Your task to perform on an android device: change the clock display to analog Image 0: 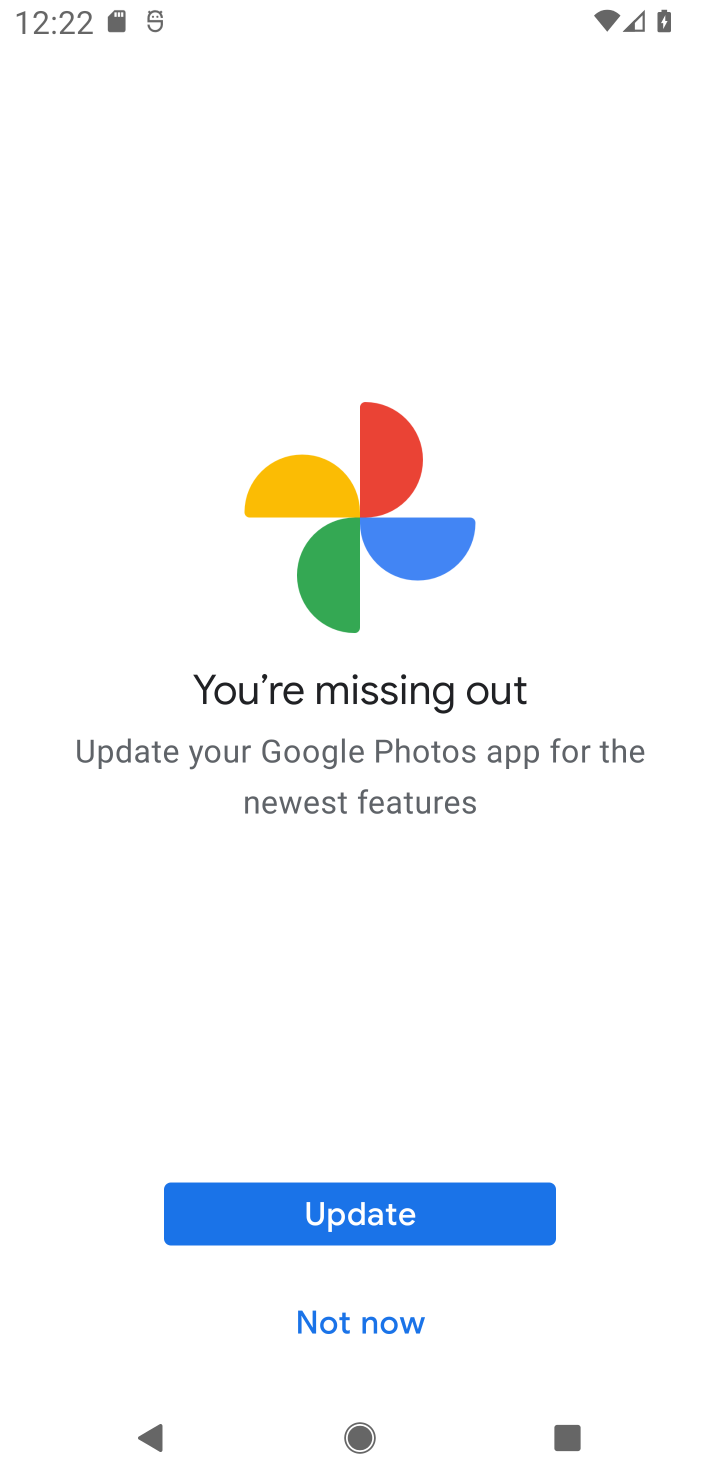
Step 0: press home button
Your task to perform on an android device: change the clock display to analog Image 1: 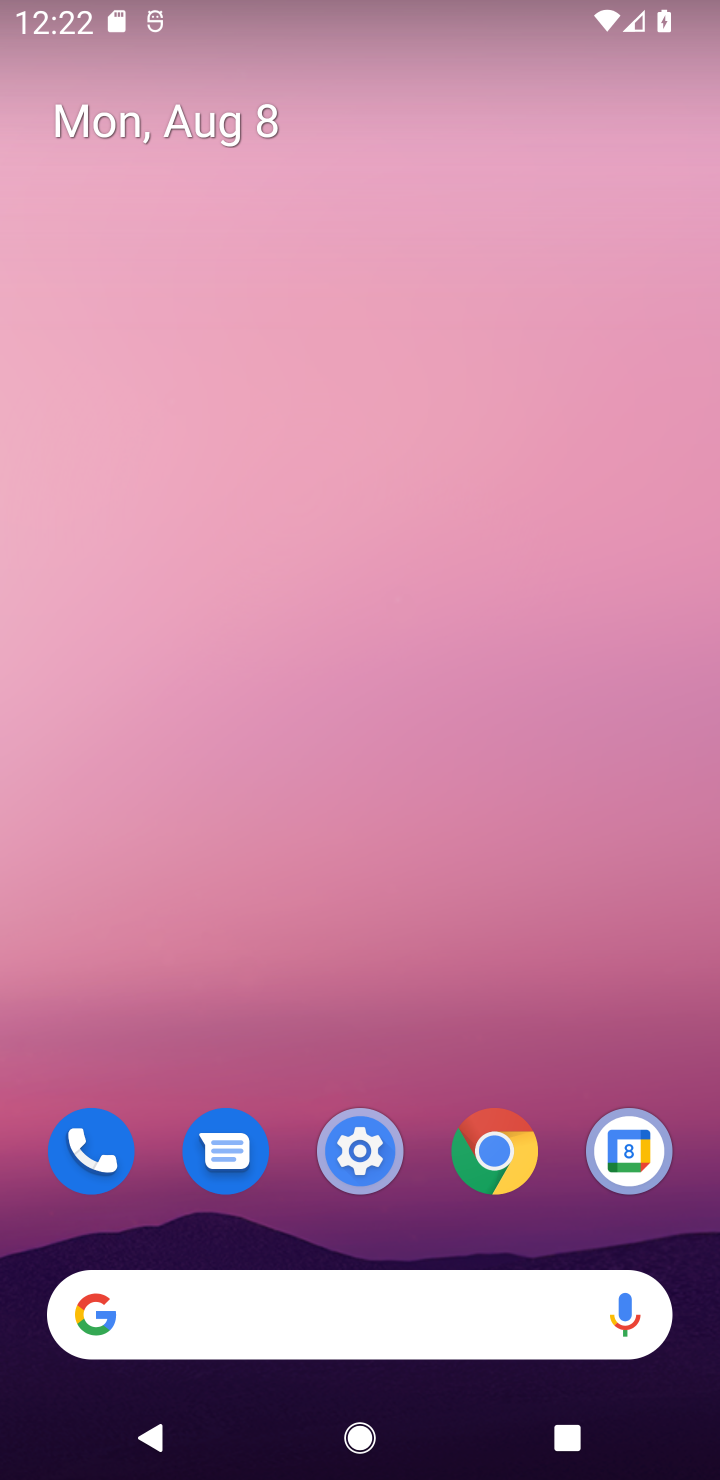
Step 1: drag from (246, 848) to (201, 162)
Your task to perform on an android device: change the clock display to analog Image 2: 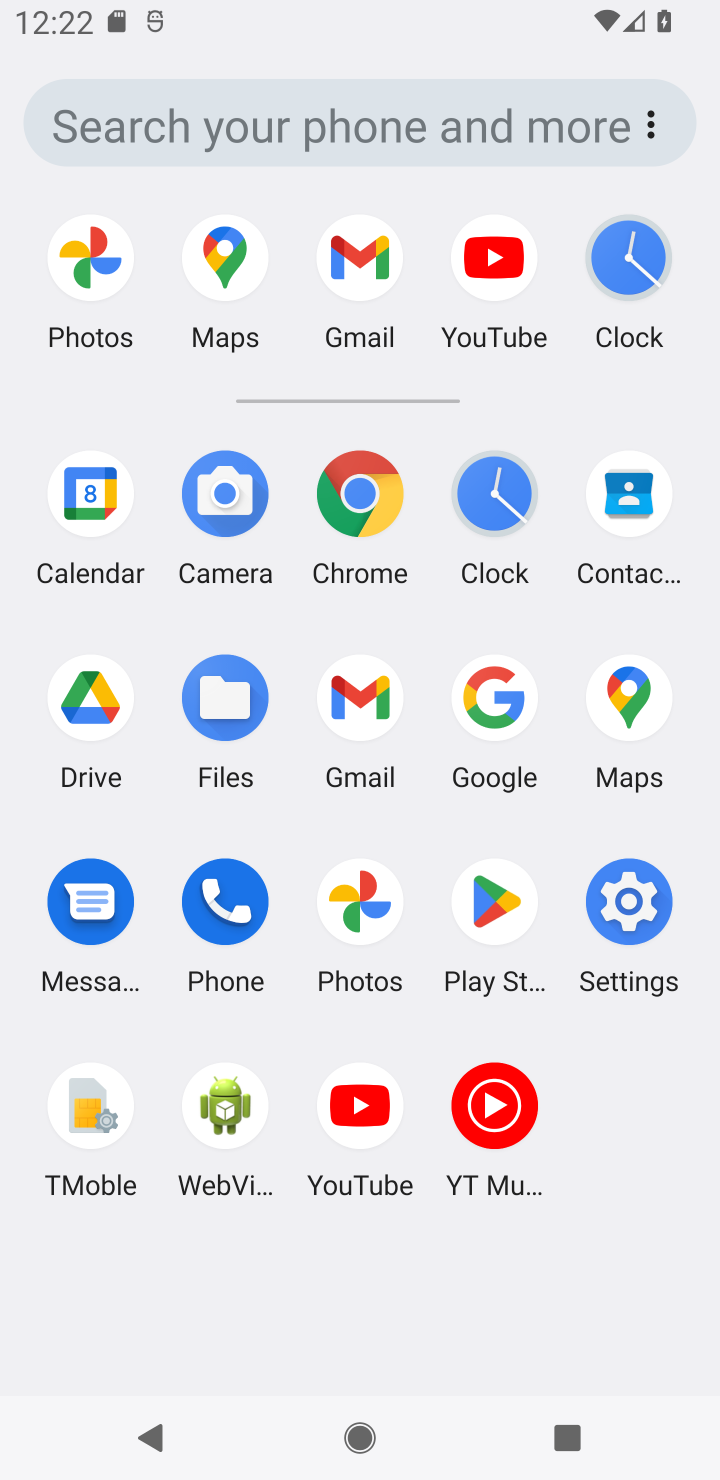
Step 2: click (491, 509)
Your task to perform on an android device: change the clock display to analog Image 3: 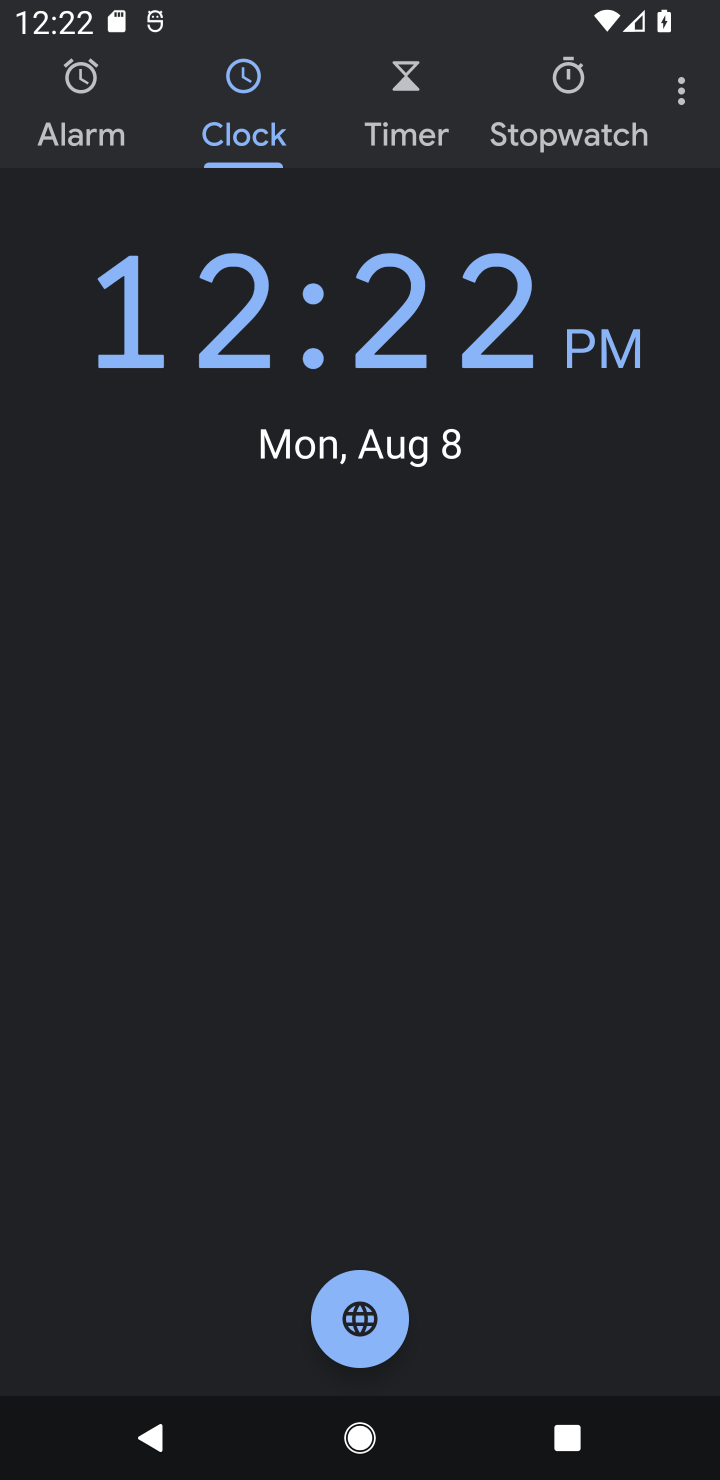
Step 3: click (686, 111)
Your task to perform on an android device: change the clock display to analog Image 4: 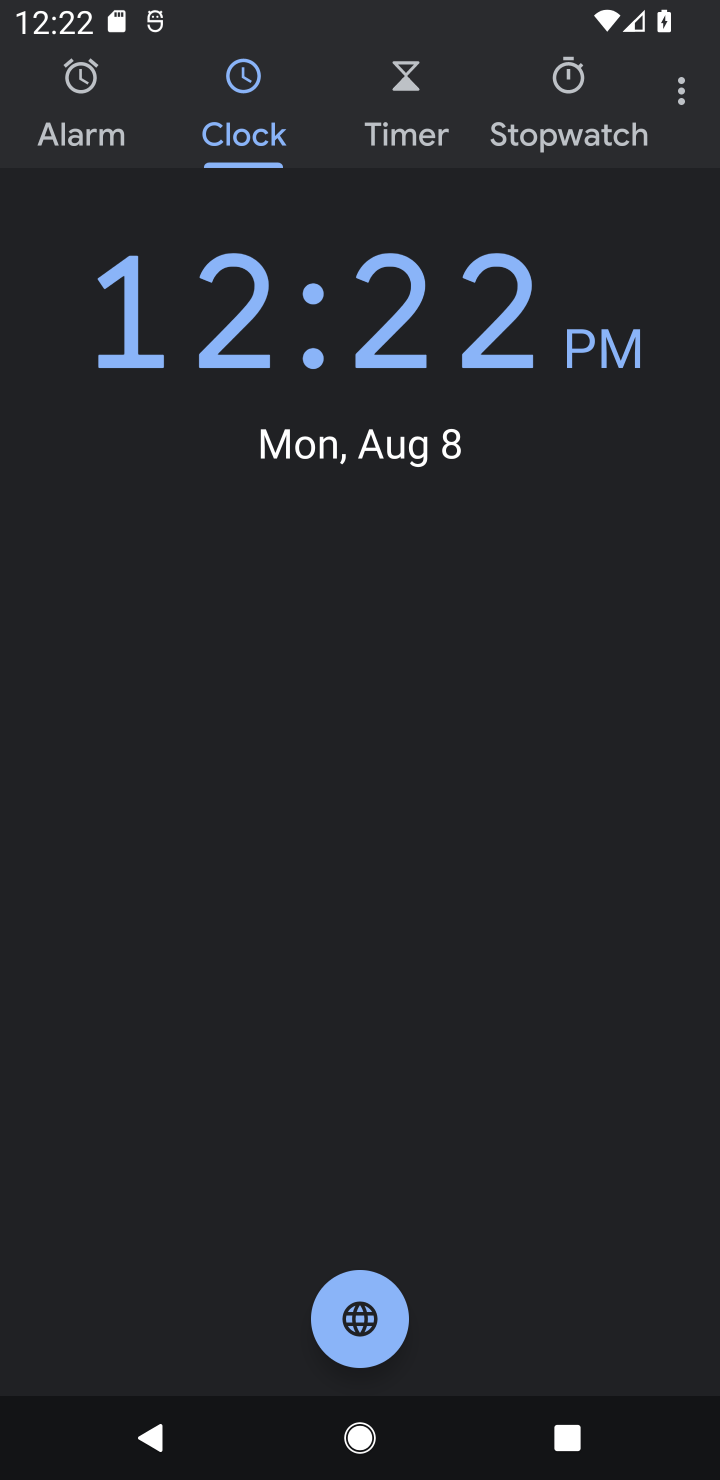
Step 4: click (660, 89)
Your task to perform on an android device: change the clock display to analog Image 5: 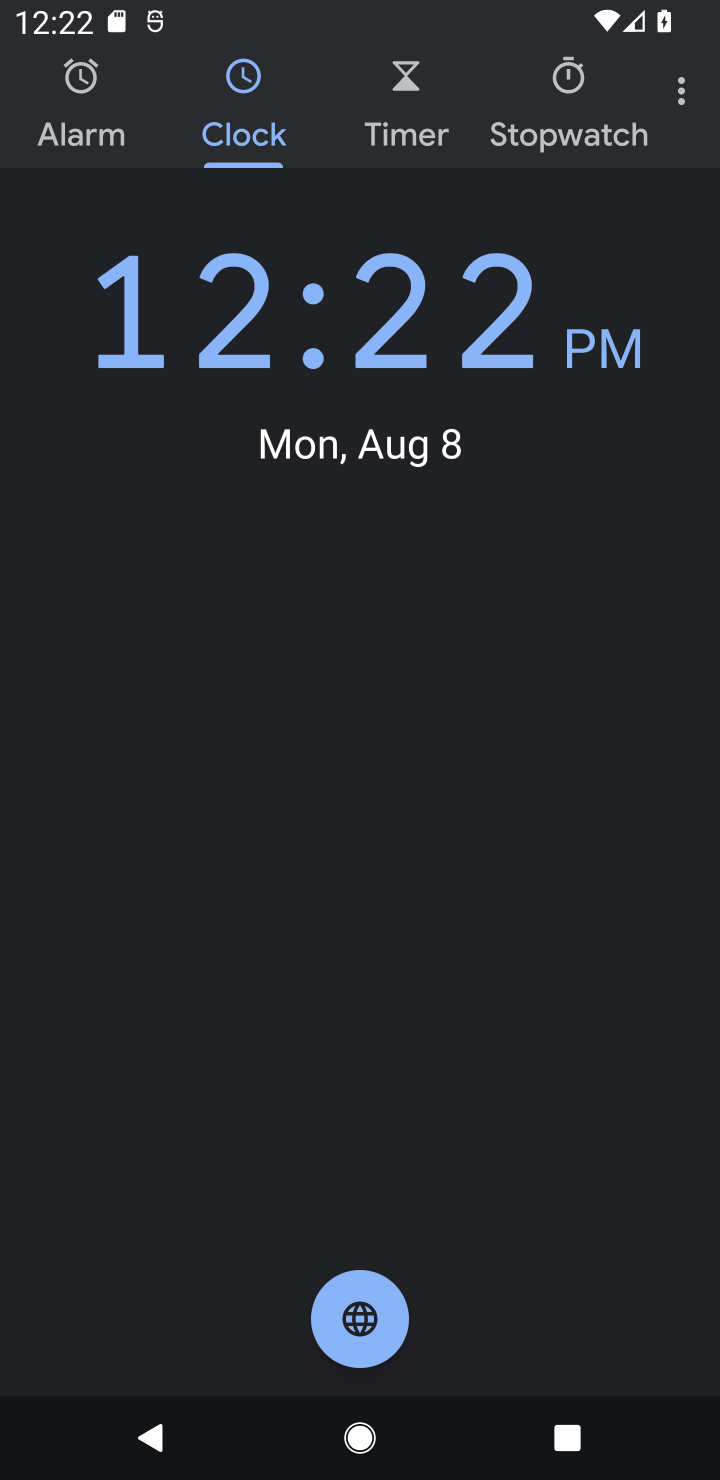
Step 5: click (674, 91)
Your task to perform on an android device: change the clock display to analog Image 6: 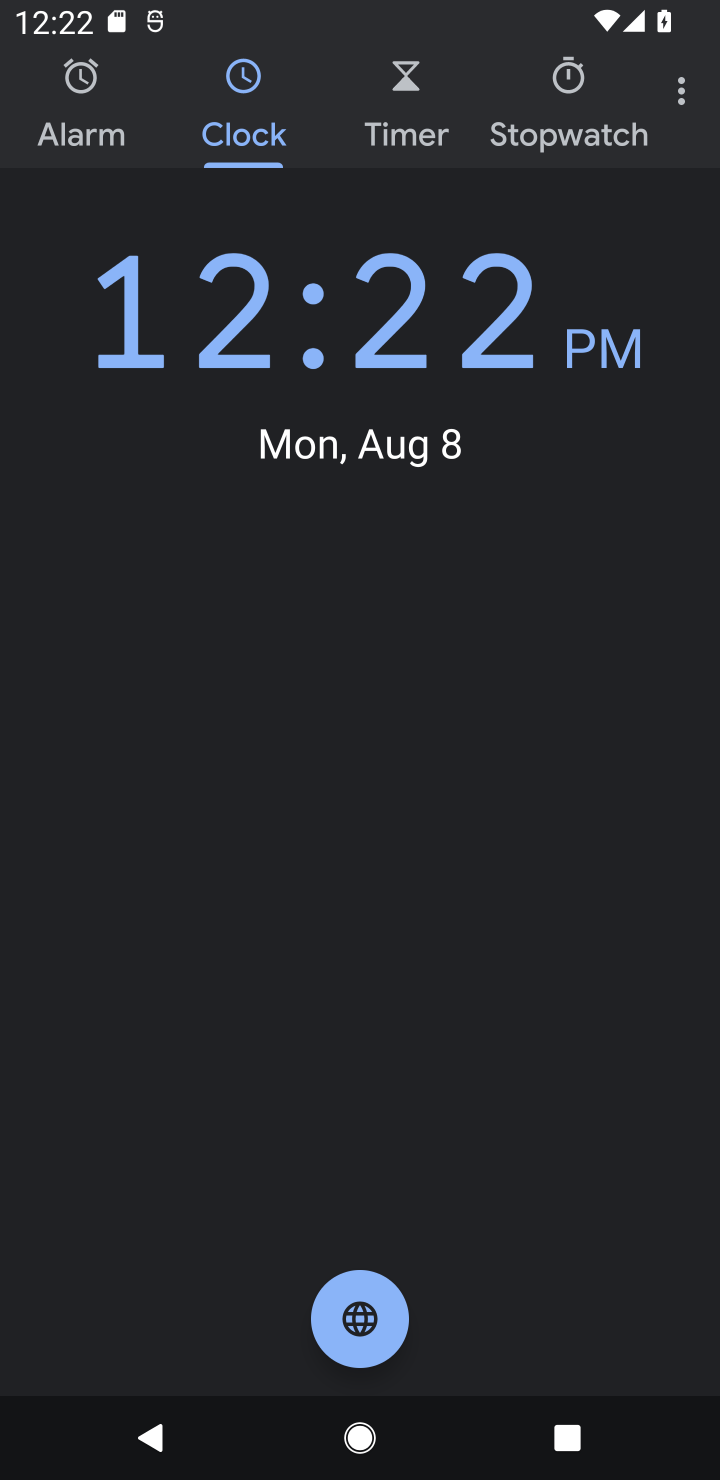
Step 6: click (686, 104)
Your task to perform on an android device: change the clock display to analog Image 7: 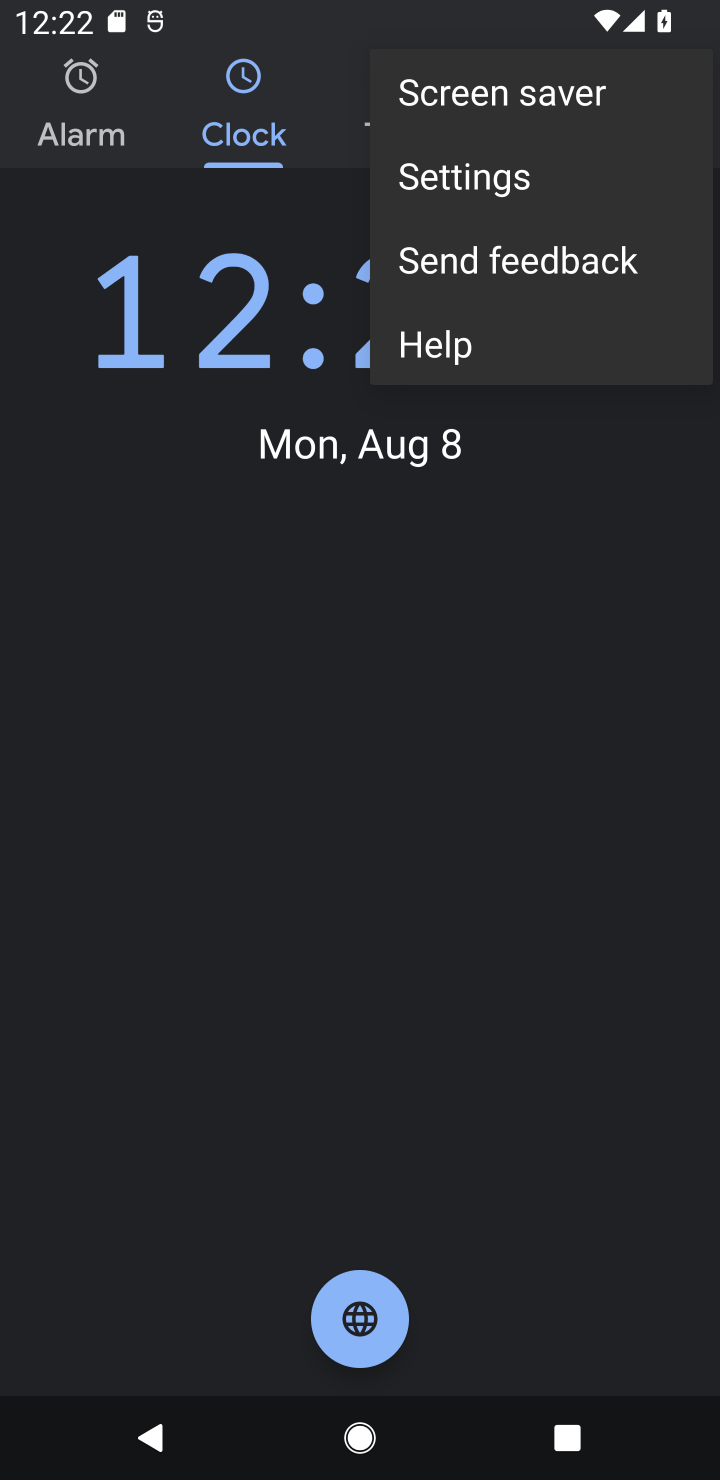
Step 7: click (487, 206)
Your task to perform on an android device: change the clock display to analog Image 8: 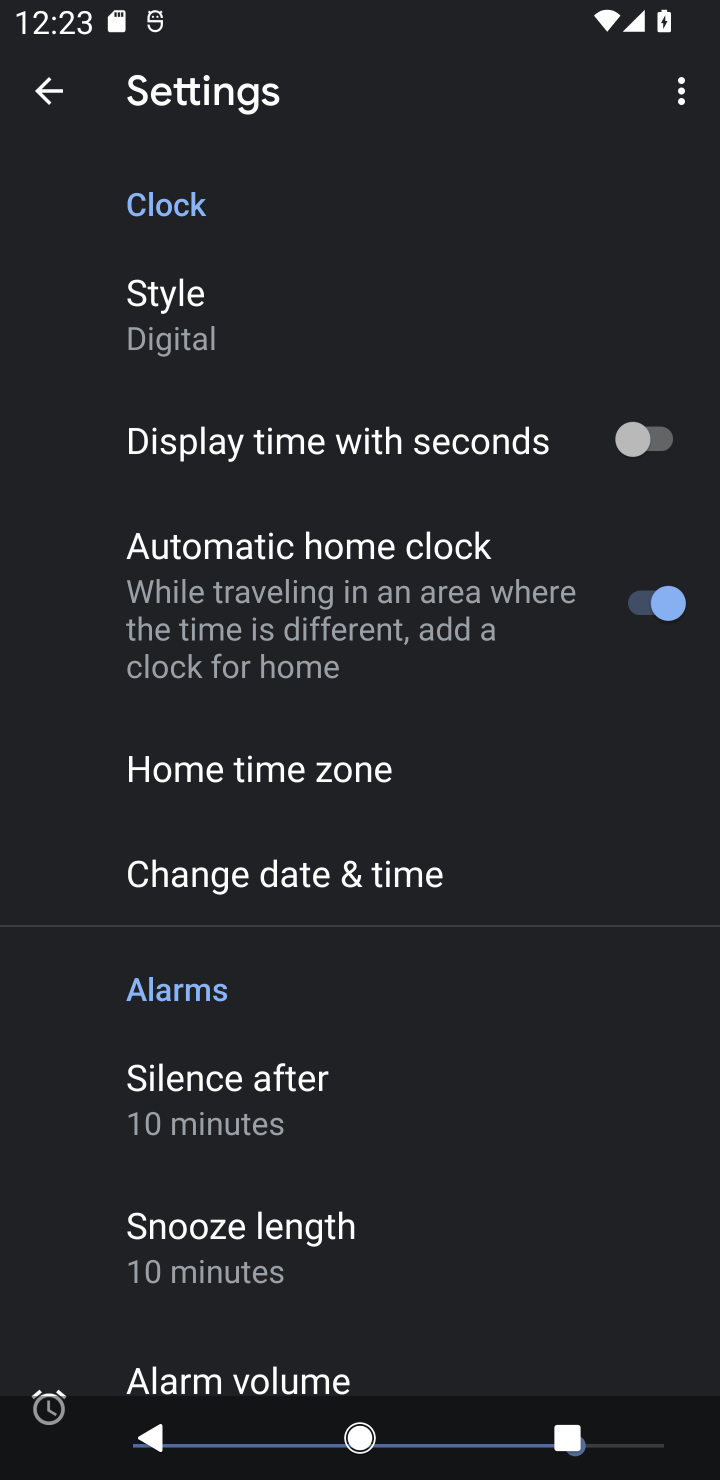
Step 8: click (673, 94)
Your task to perform on an android device: change the clock display to analog Image 9: 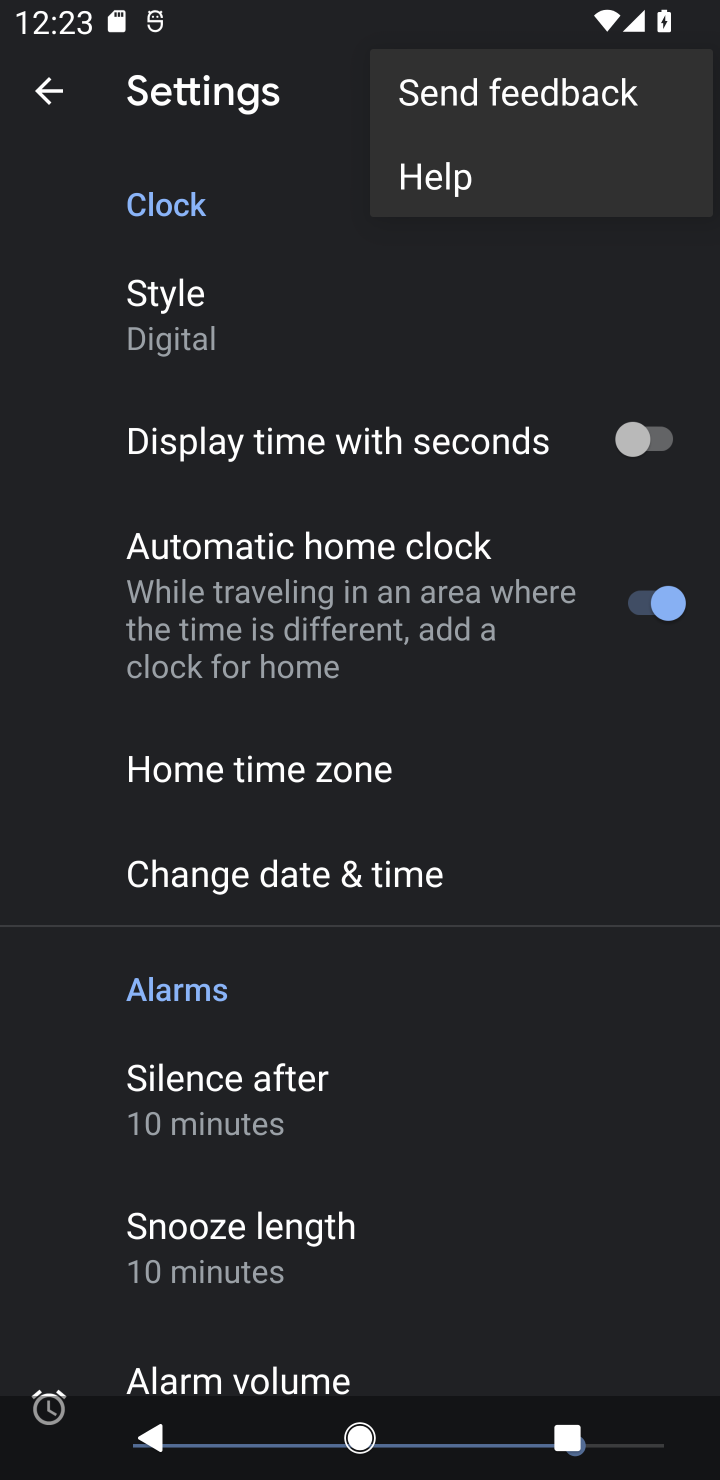
Step 9: click (340, 240)
Your task to perform on an android device: change the clock display to analog Image 10: 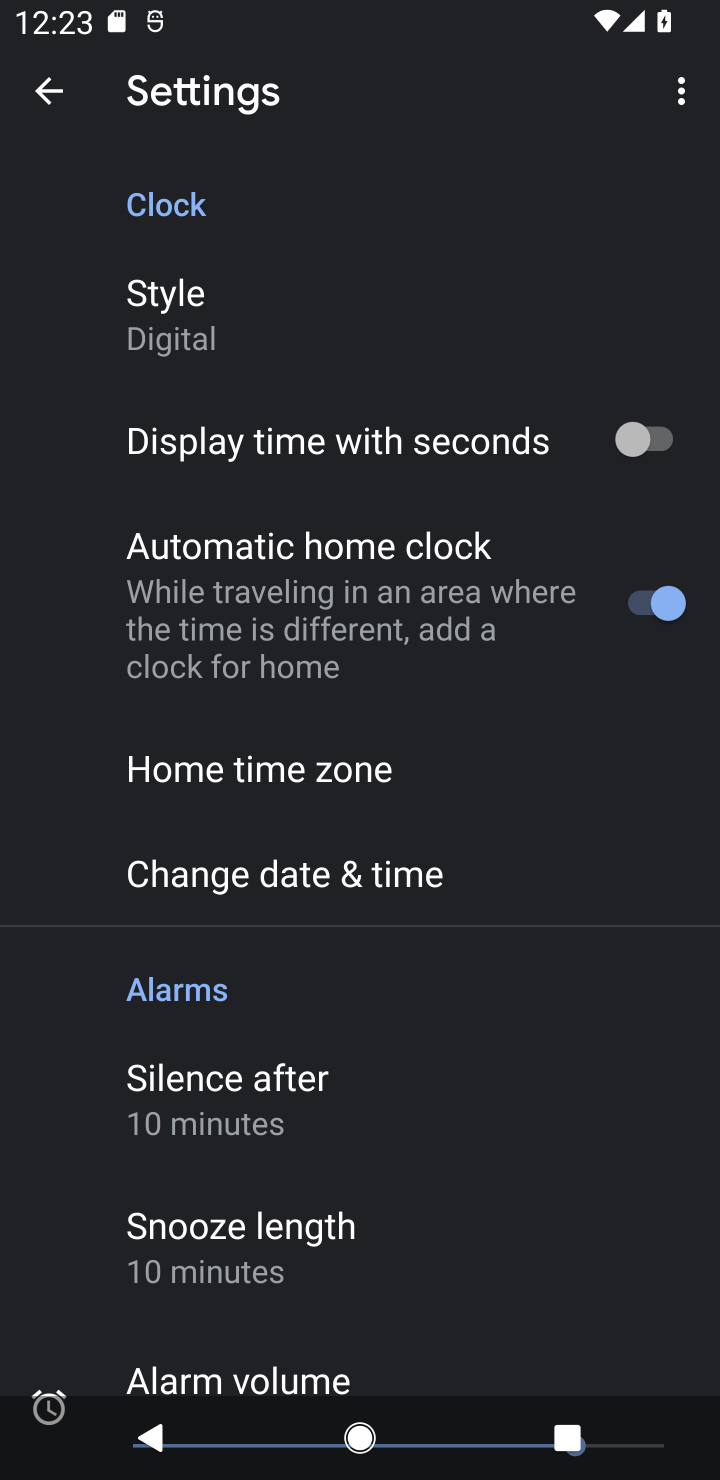
Step 10: click (180, 323)
Your task to perform on an android device: change the clock display to analog Image 11: 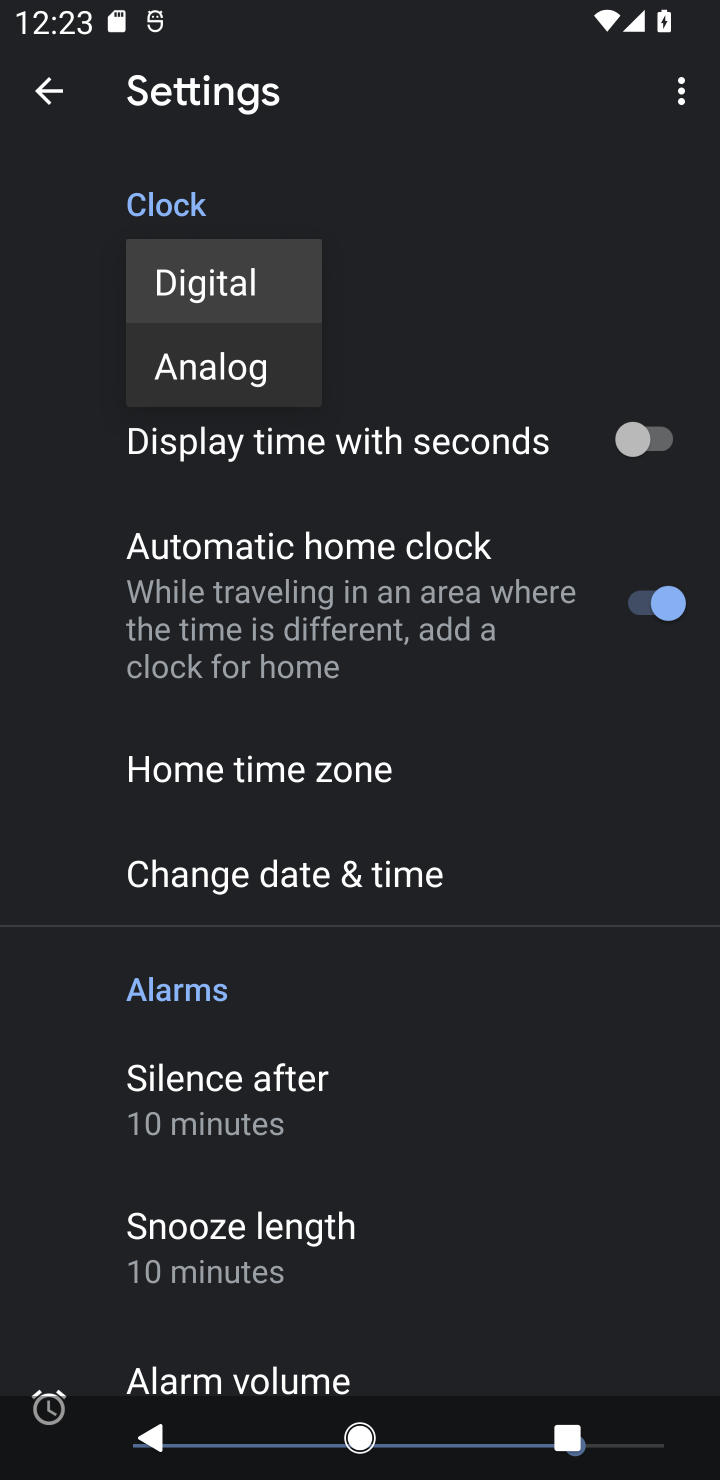
Step 11: click (249, 371)
Your task to perform on an android device: change the clock display to analog Image 12: 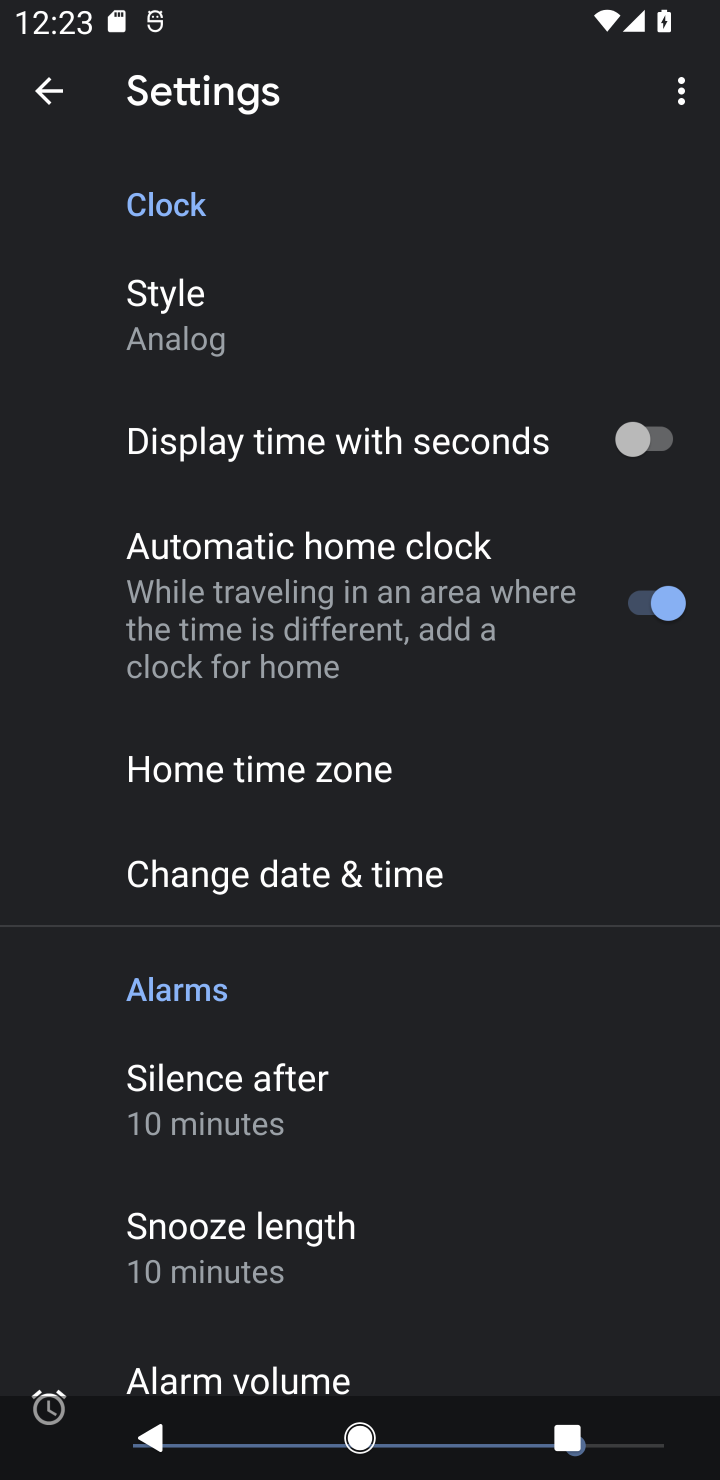
Step 12: task complete